Your task to perform on an android device: Show me productivity apps on the Play Store Image 0: 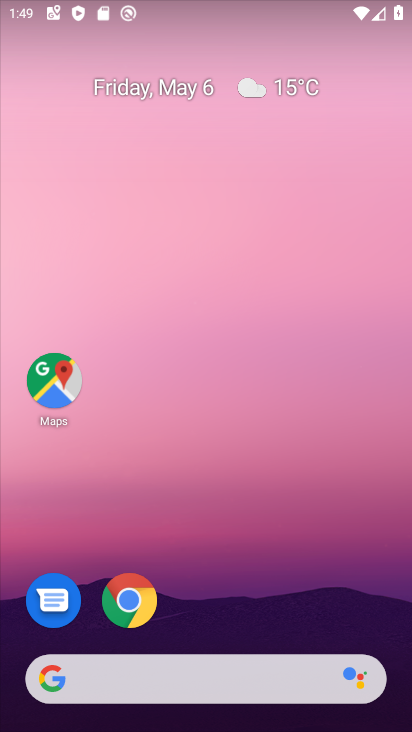
Step 0: drag from (364, 630) to (322, 107)
Your task to perform on an android device: Show me productivity apps on the Play Store Image 1: 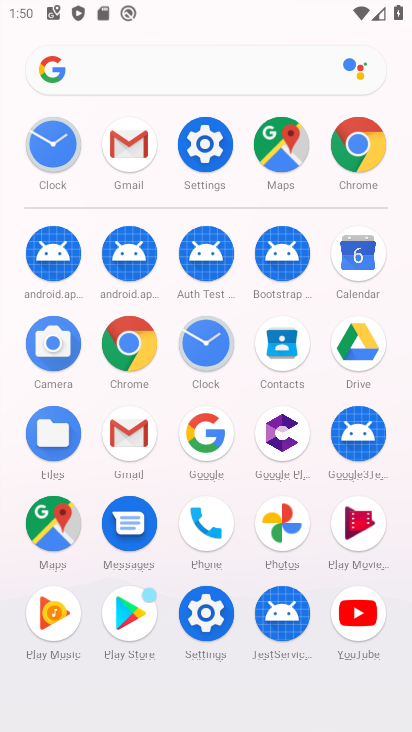
Step 1: click (140, 621)
Your task to perform on an android device: Show me productivity apps on the Play Store Image 2: 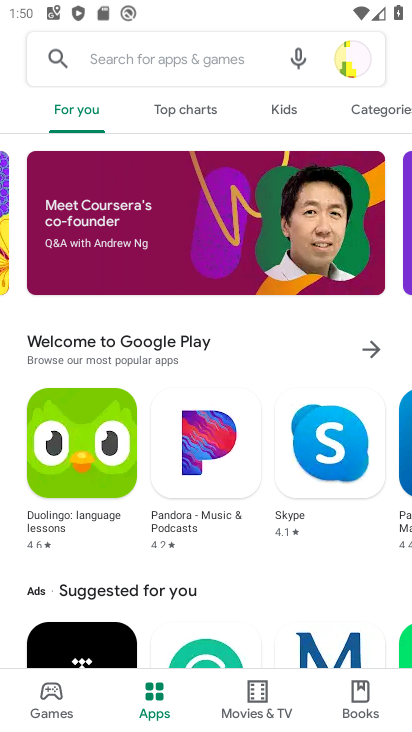
Step 2: task complete